Your task to perform on an android device: open a bookmark in the chrome app Image 0: 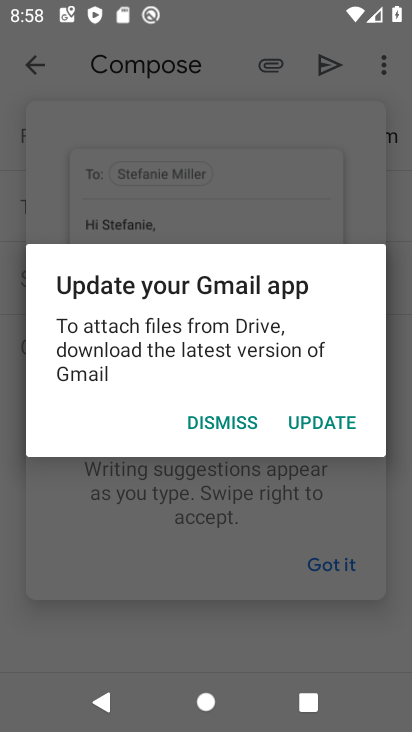
Step 0: press home button
Your task to perform on an android device: open a bookmark in the chrome app Image 1: 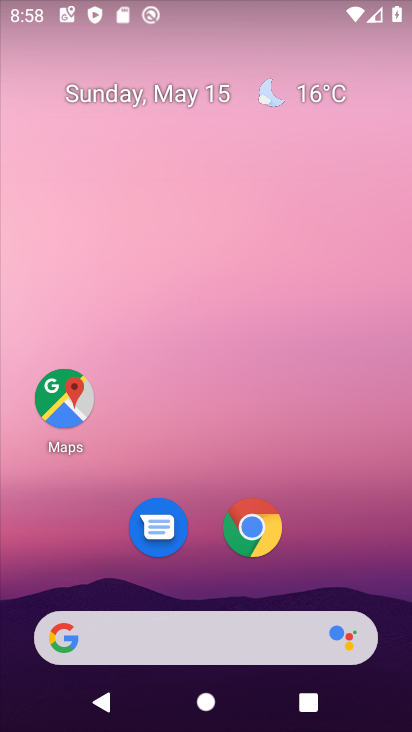
Step 1: click (256, 531)
Your task to perform on an android device: open a bookmark in the chrome app Image 2: 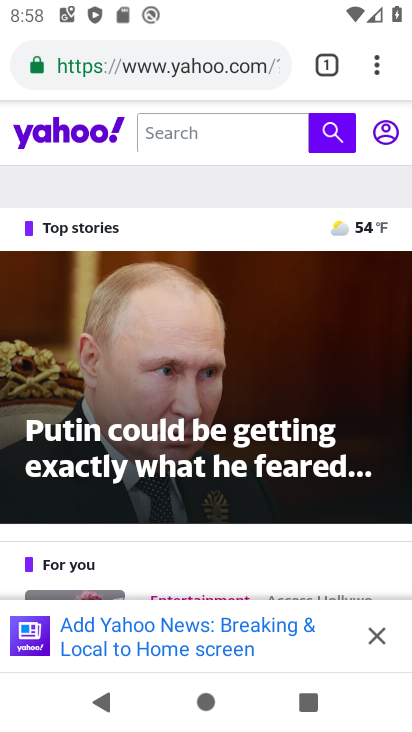
Step 2: click (374, 65)
Your task to perform on an android device: open a bookmark in the chrome app Image 3: 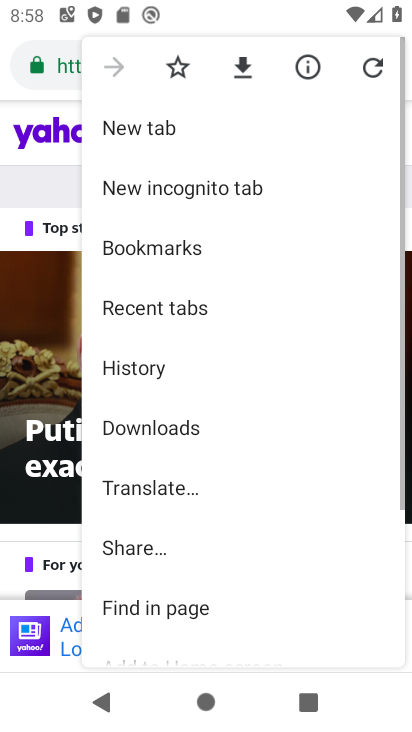
Step 3: click (153, 258)
Your task to perform on an android device: open a bookmark in the chrome app Image 4: 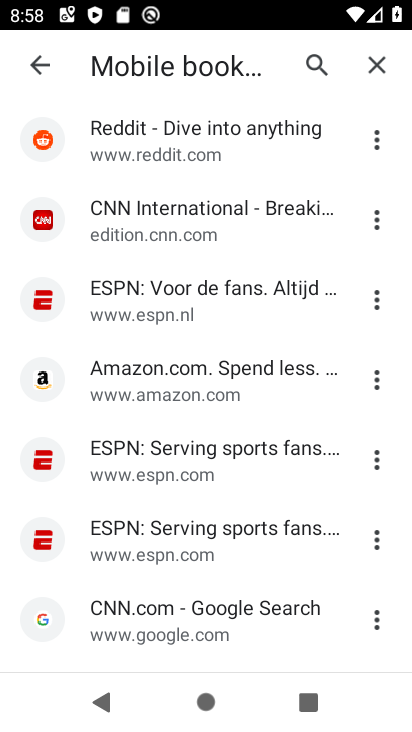
Step 4: click (134, 228)
Your task to perform on an android device: open a bookmark in the chrome app Image 5: 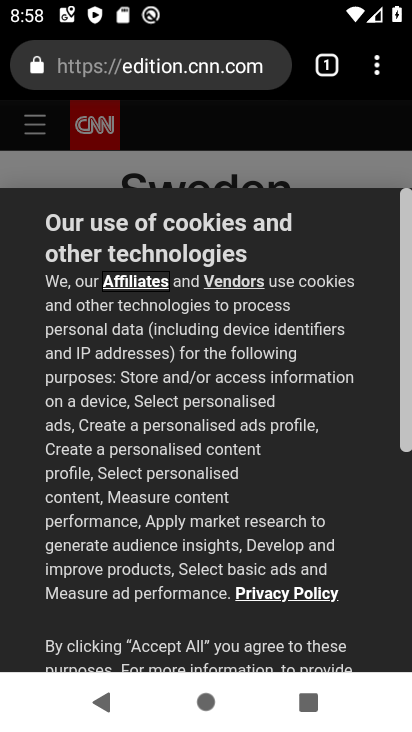
Step 5: task complete